Your task to perform on an android device: install app "Google Photos" Image 0: 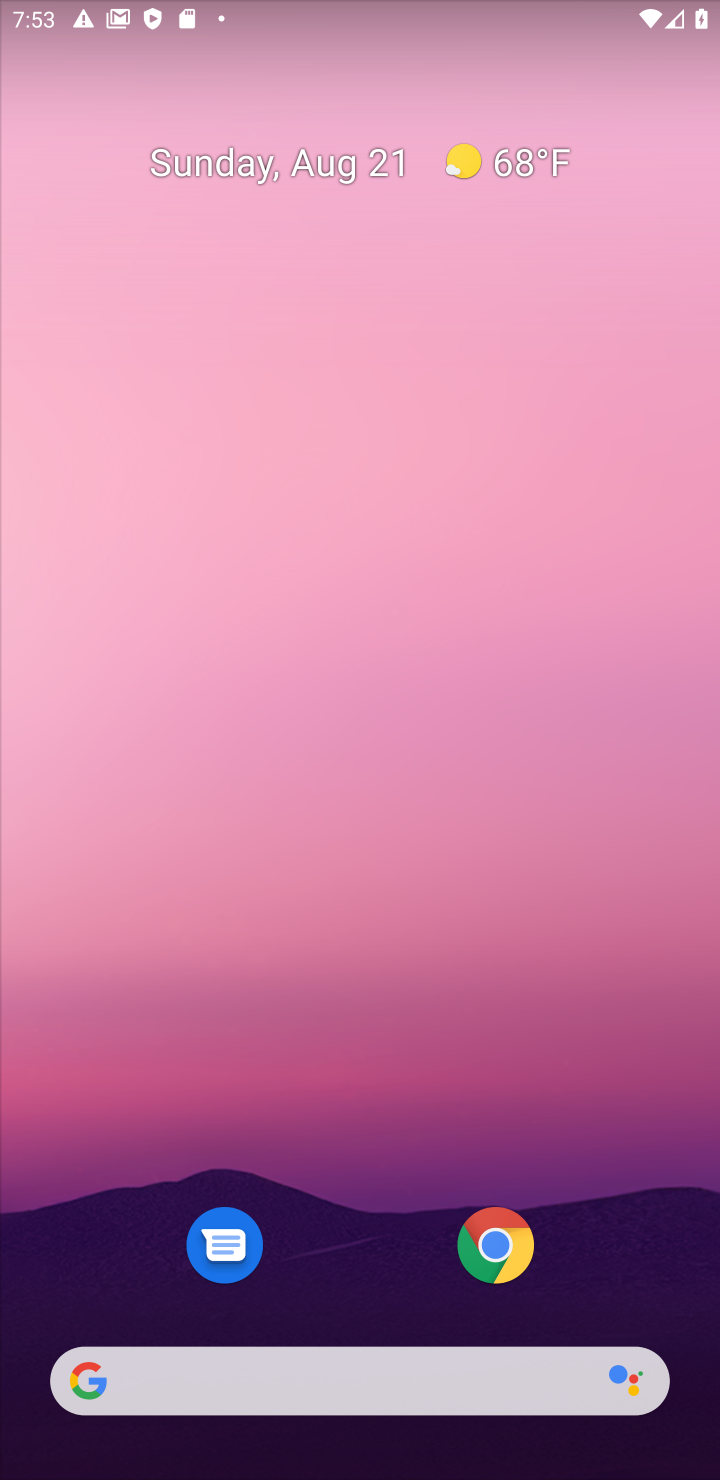
Step 0: drag from (346, 1313) to (718, 915)
Your task to perform on an android device: install app "Google Photos" Image 1: 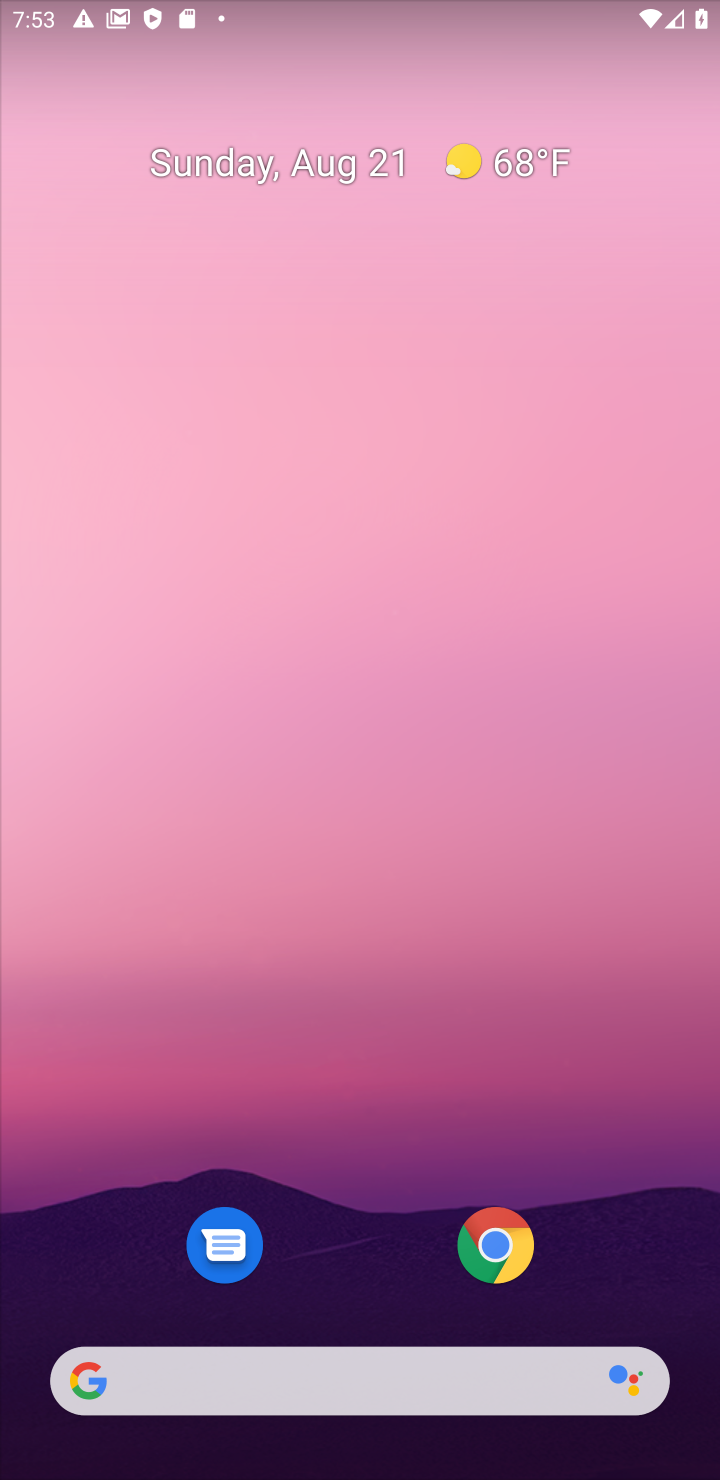
Step 1: drag from (369, 1281) to (560, 24)
Your task to perform on an android device: install app "Google Photos" Image 2: 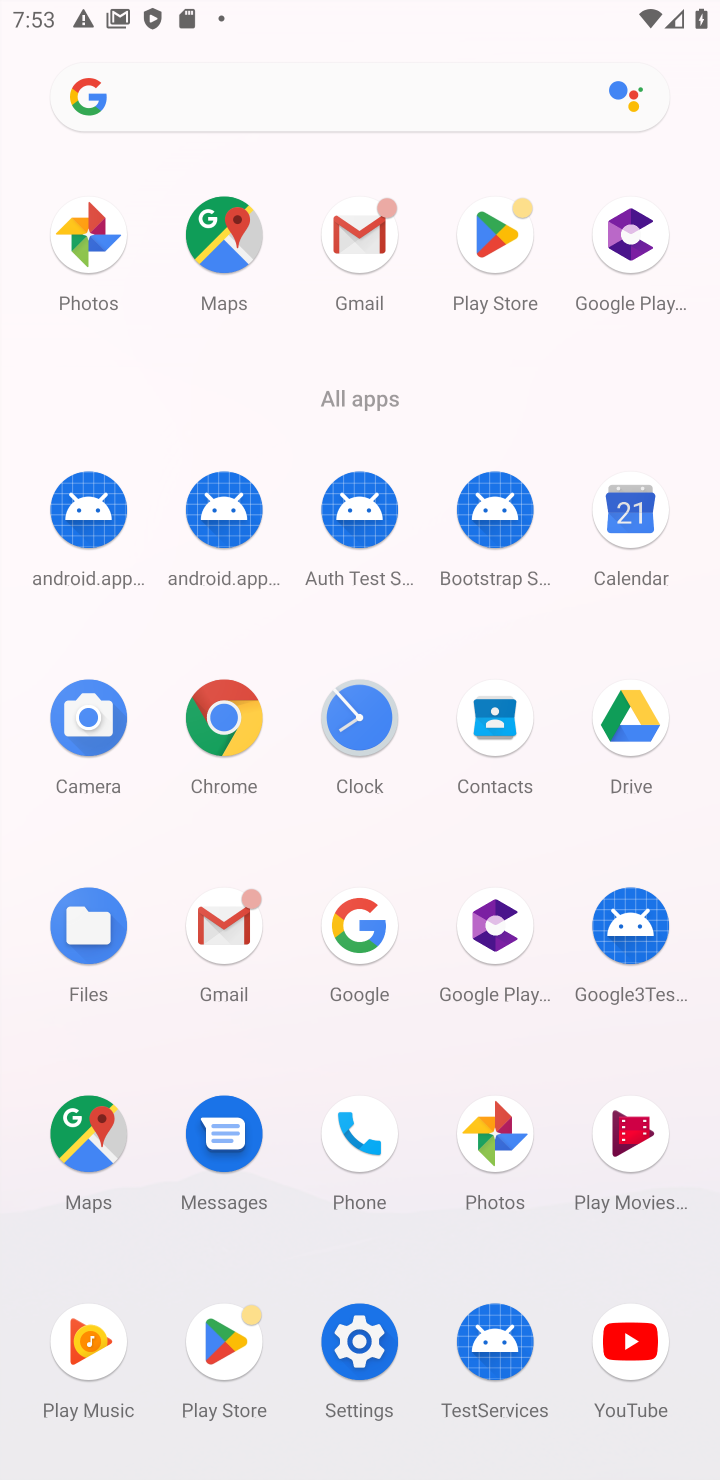
Step 2: click (484, 1153)
Your task to perform on an android device: install app "Google Photos" Image 3: 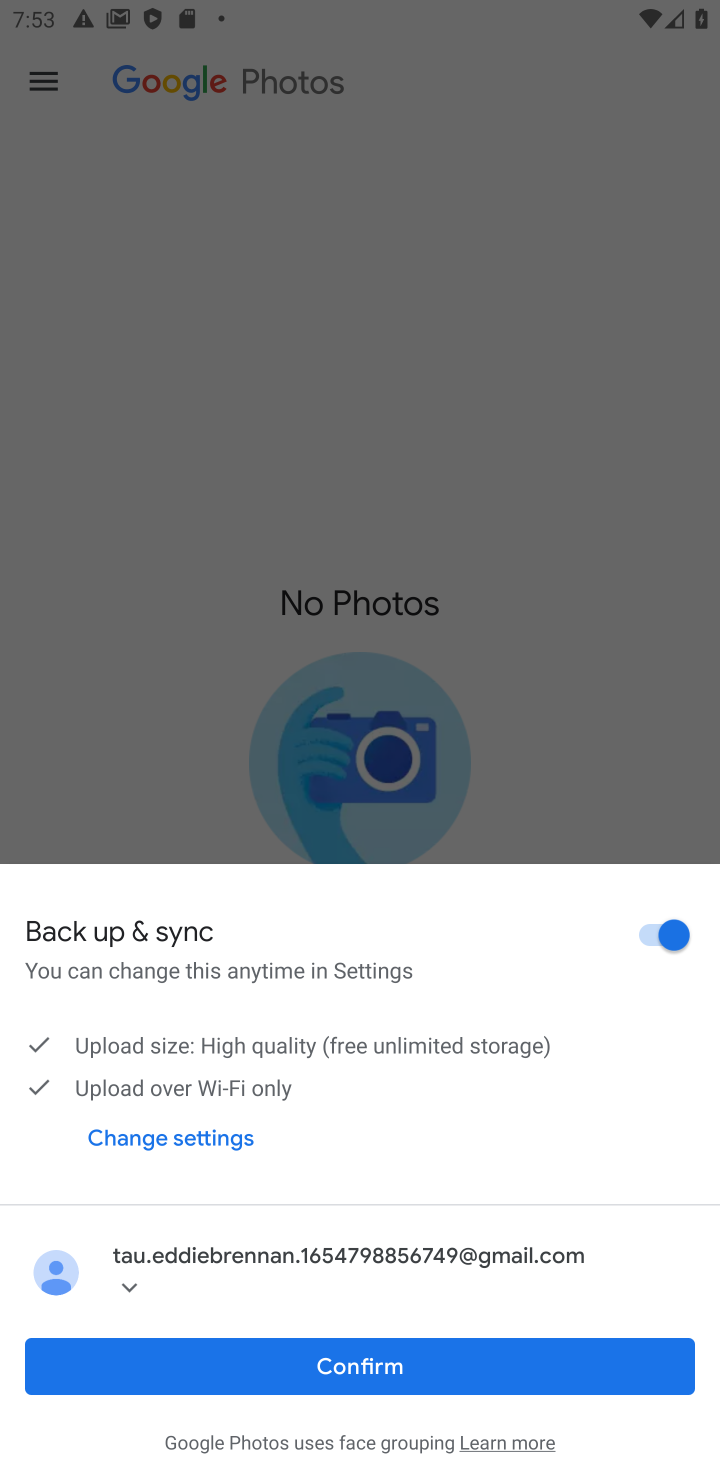
Step 3: click (497, 1360)
Your task to perform on an android device: install app "Google Photos" Image 4: 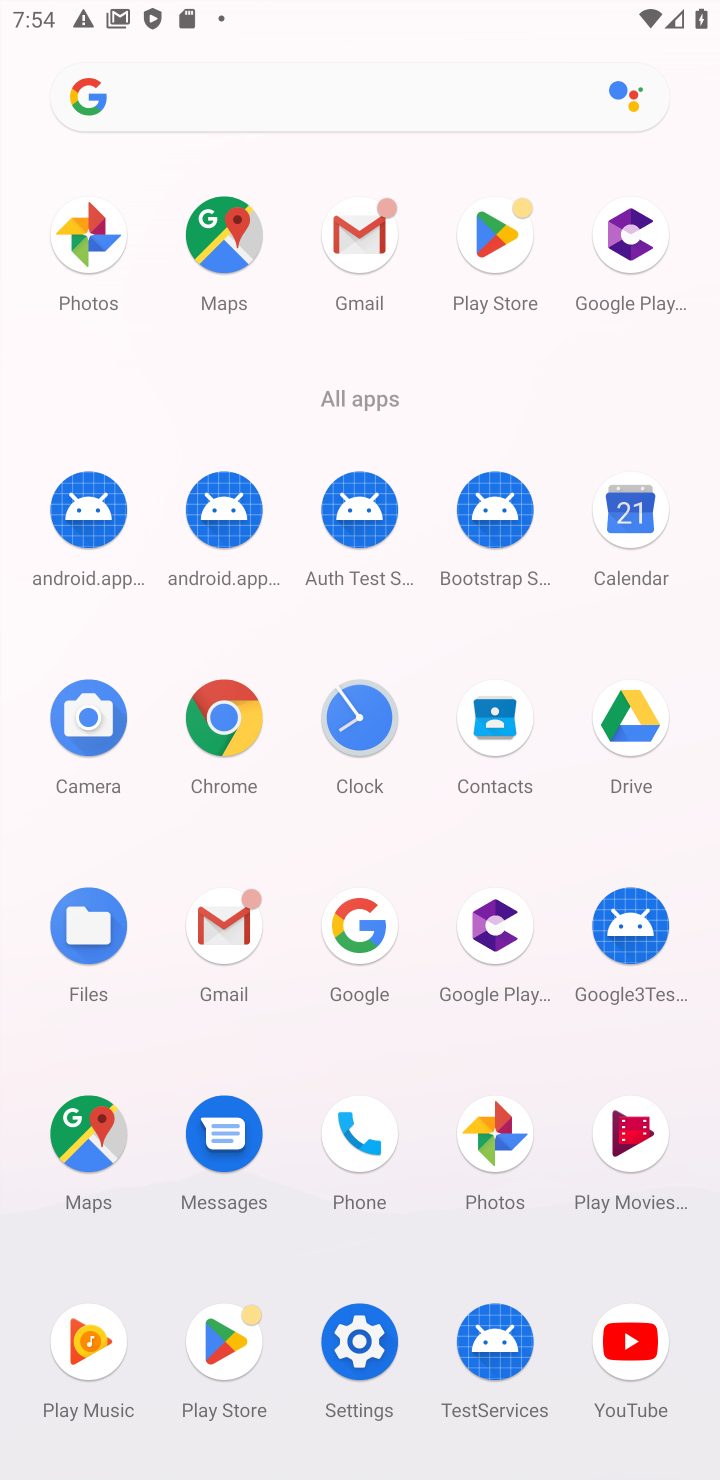
Step 4: click (500, 1155)
Your task to perform on an android device: install app "Google Photos" Image 5: 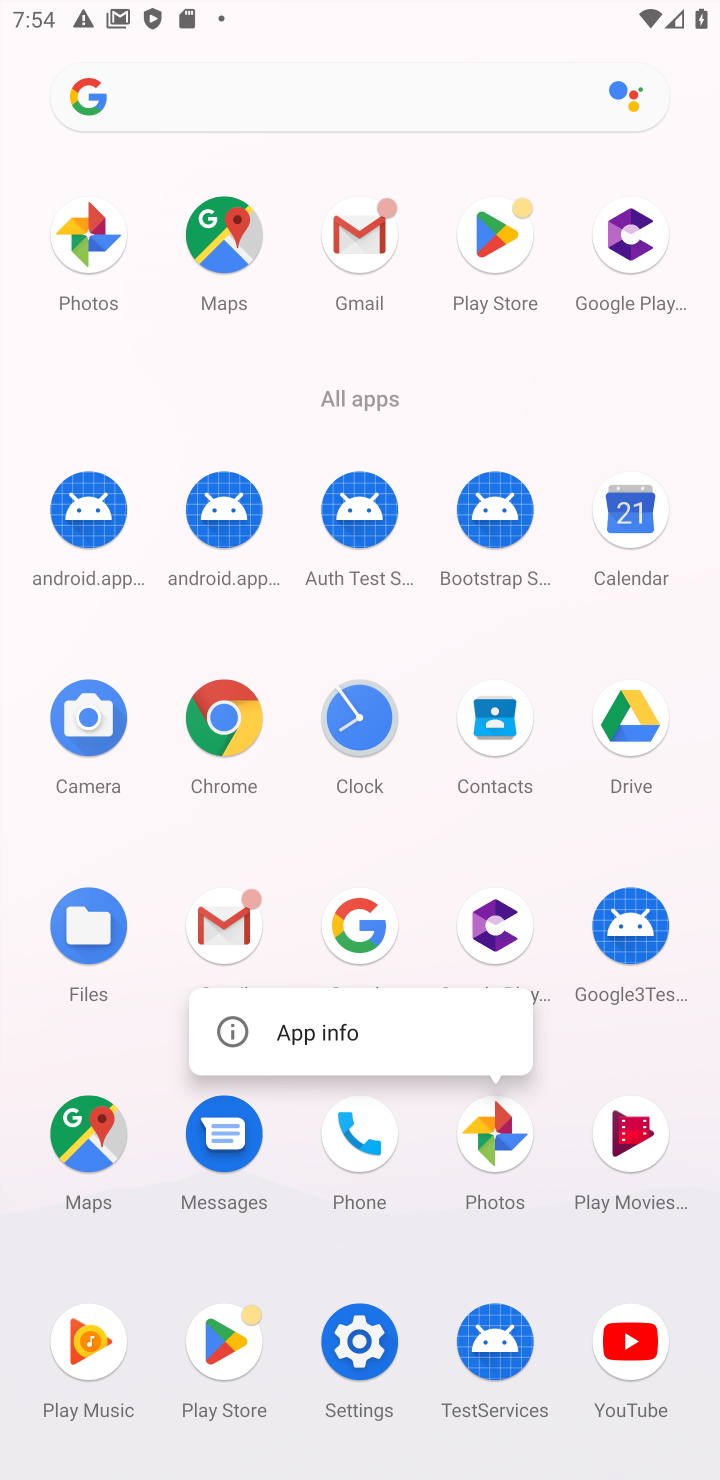
Step 5: click (484, 1134)
Your task to perform on an android device: install app "Google Photos" Image 6: 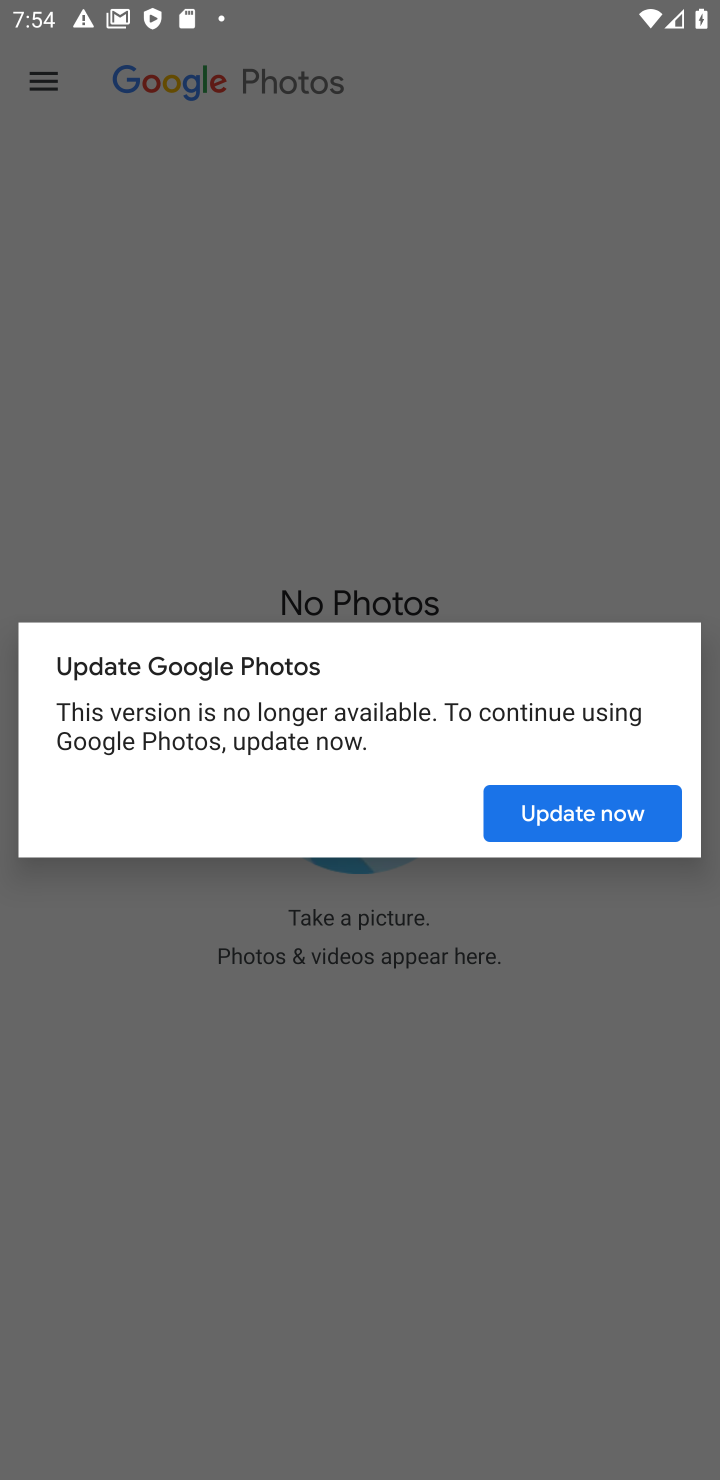
Step 6: task complete